Your task to perform on an android device: Go to Reddit.com Image 0: 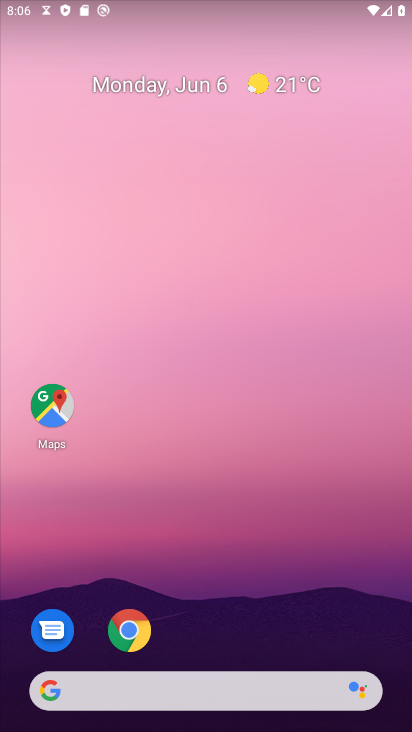
Step 0: click (128, 630)
Your task to perform on an android device: Go to Reddit.com Image 1: 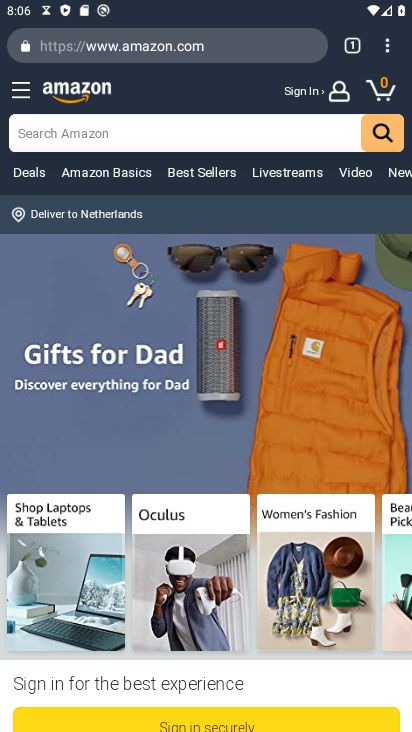
Step 1: click (228, 44)
Your task to perform on an android device: Go to Reddit.com Image 2: 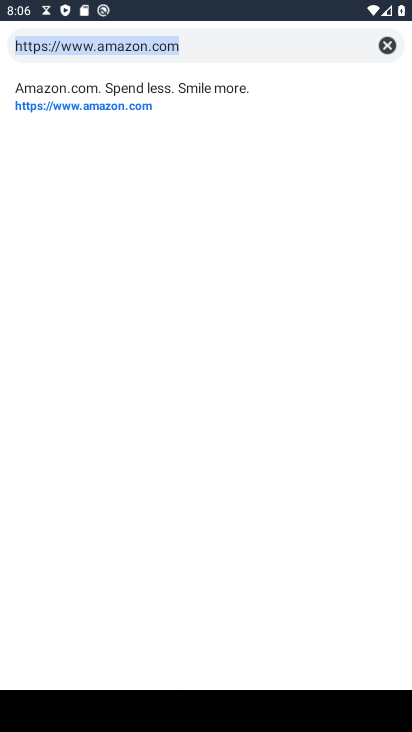
Step 2: click (387, 42)
Your task to perform on an android device: Go to Reddit.com Image 3: 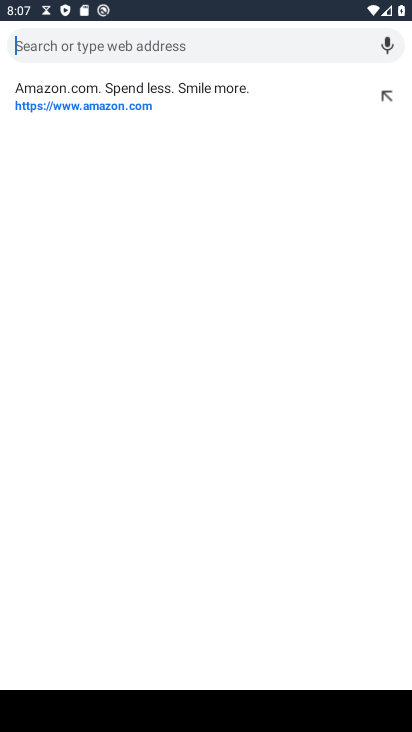
Step 3: type "Reddit.com"
Your task to perform on an android device: Go to Reddit.com Image 4: 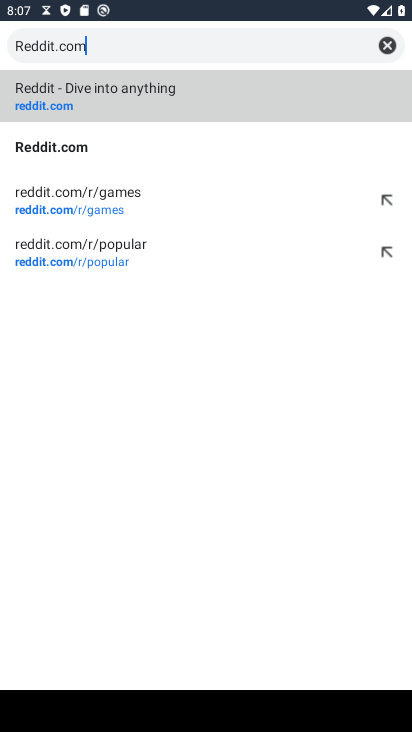
Step 4: click (85, 147)
Your task to perform on an android device: Go to Reddit.com Image 5: 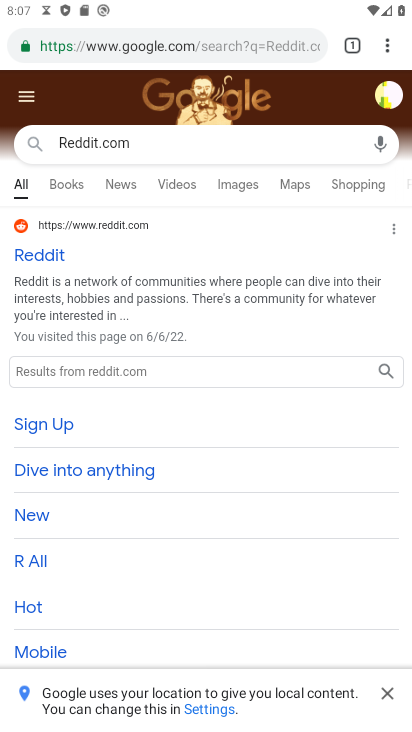
Step 5: click (30, 243)
Your task to perform on an android device: Go to Reddit.com Image 6: 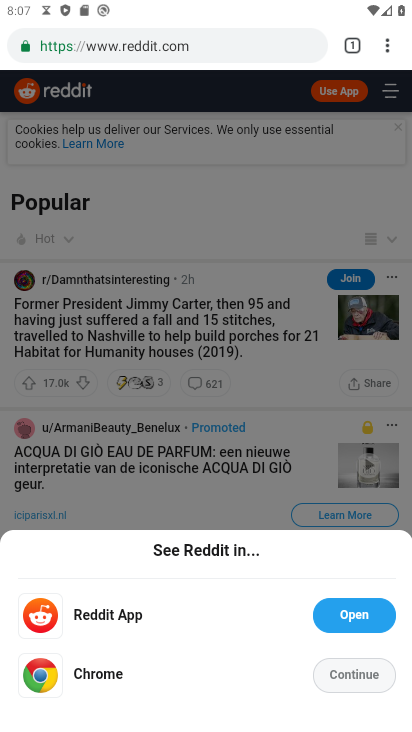
Step 6: click (343, 668)
Your task to perform on an android device: Go to Reddit.com Image 7: 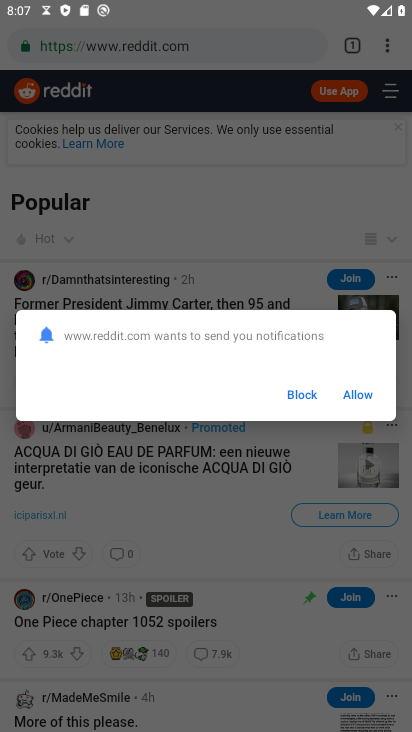
Step 7: click (361, 398)
Your task to perform on an android device: Go to Reddit.com Image 8: 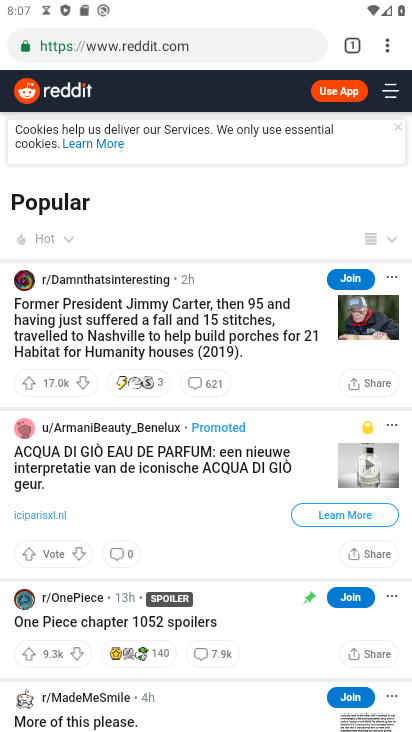
Step 8: task complete